Your task to perform on an android device: change text size in settings app Image 0: 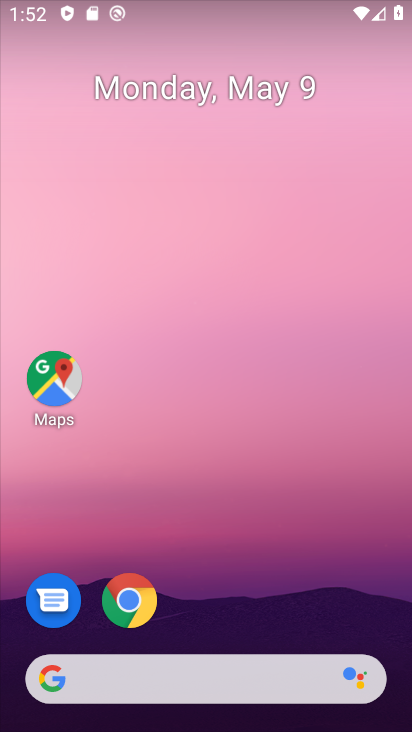
Step 0: drag from (273, 596) to (298, 58)
Your task to perform on an android device: change text size in settings app Image 1: 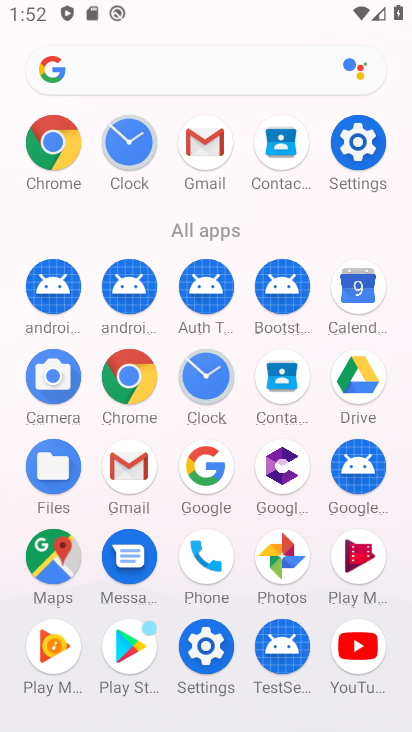
Step 1: click (380, 158)
Your task to perform on an android device: change text size in settings app Image 2: 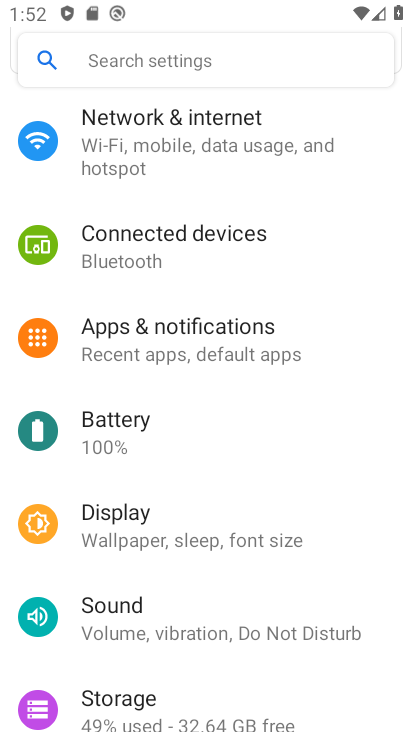
Step 2: drag from (180, 613) to (220, 237)
Your task to perform on an android device: change text size in settings app Image 3: 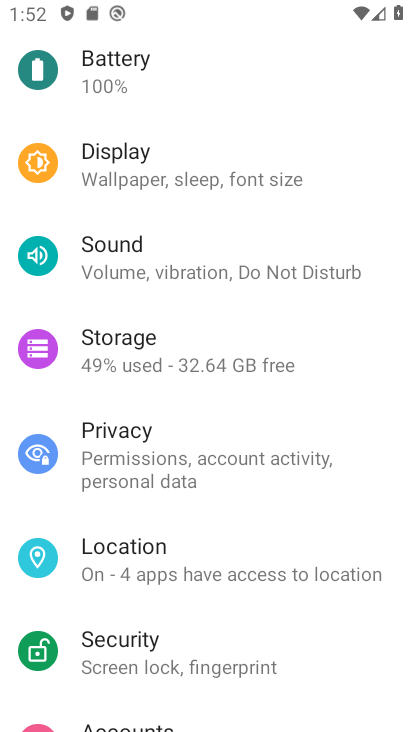
Step 3: drag from (238, 591) to (248, 224)
Your task to perform on an android device: change text size in settings app Image 4: 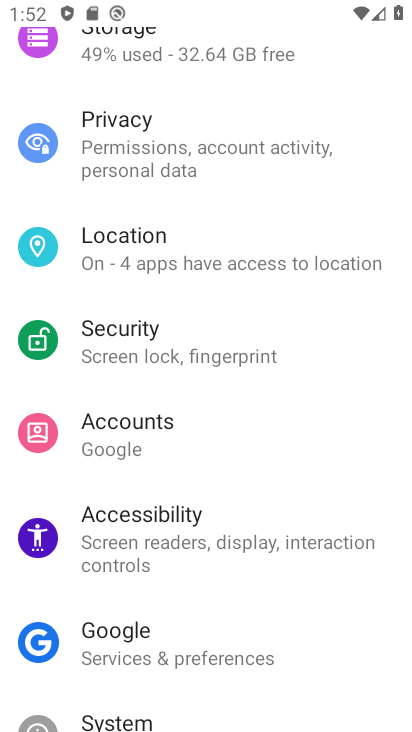
Step 4: drag from (304, 282) to (367, 501)
Your task to perform on an android device: change text size in settings app Image 5: 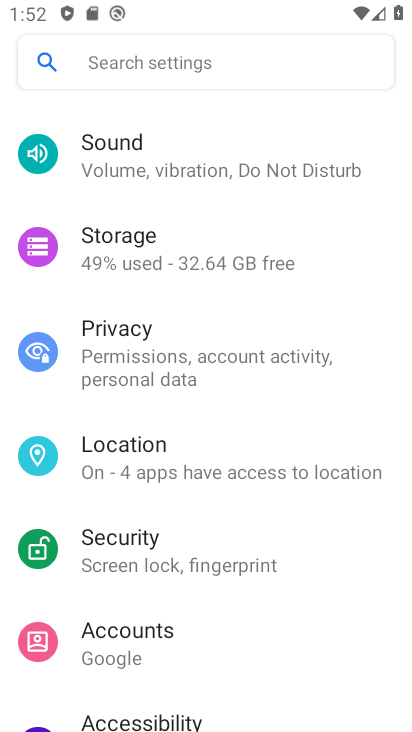
Step 5: drag from (309, 168) to (307, 504)
Your task to perform on an android device: change text size in settings app Image 6: 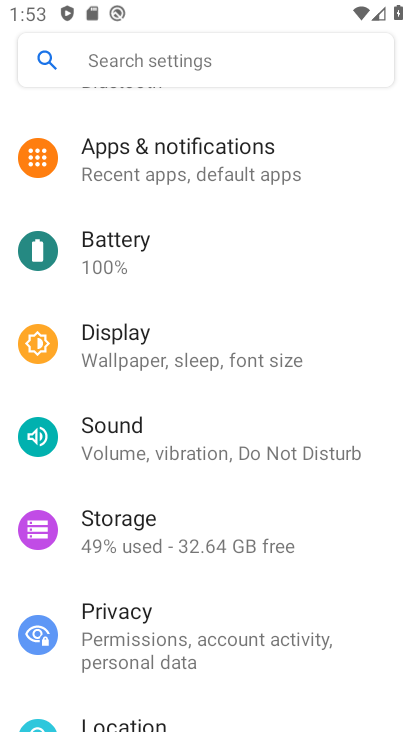
Step 6: click (214, 345)
Your task to perform on an android device: change text size in settings app Image 7: 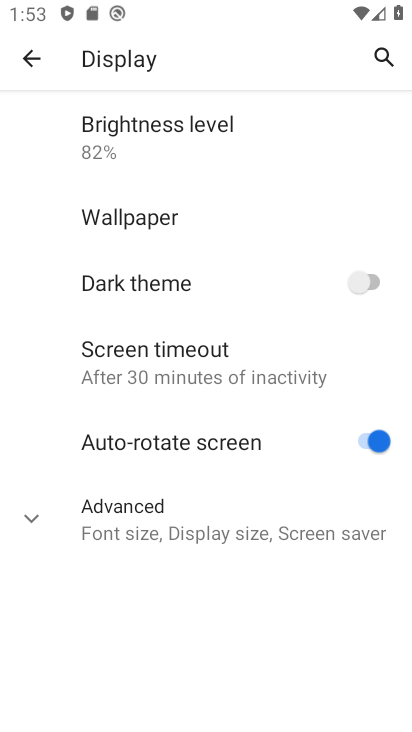
Step 7: click (168, 521)
Your task to perform on an android device: change text size in settings app Image 8: 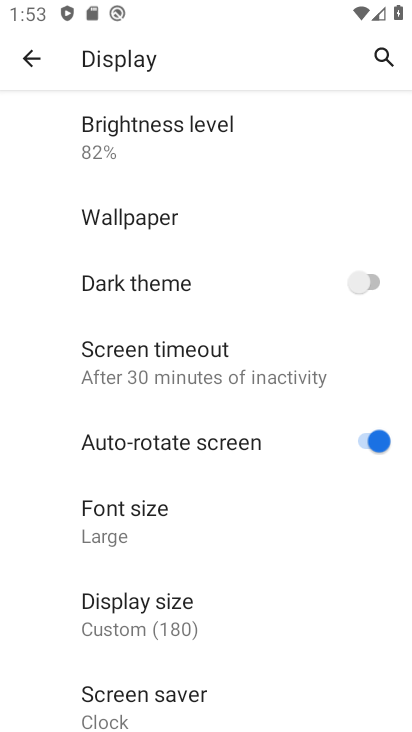
Step 8: click (169, 510)
Your task to perform on an android device: change text size in settings app Image 9: 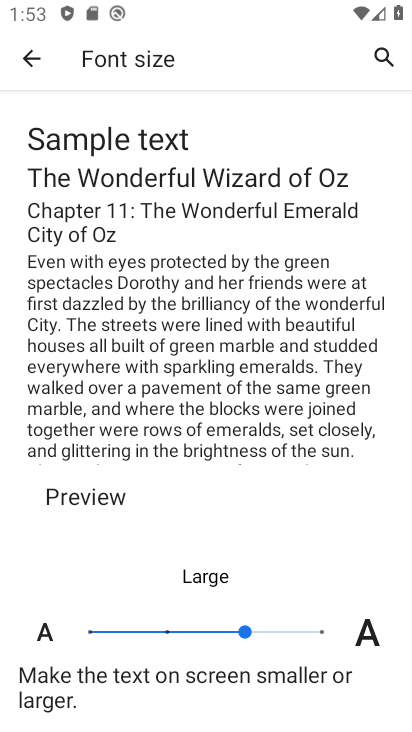
Step 9: click (318, 626)
Your task to perform on an android device: change text size in settings app Image 10: 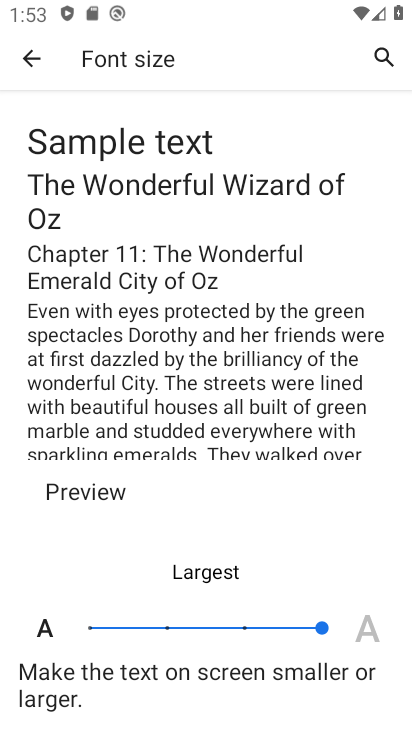
Step 10: task complete